Your task to perform on an android device: Show the shopping cart on newegg.com. Search for "macbook pro 15 inch" on newegg.com, select the first entry, and add it to the cart. Image 0: 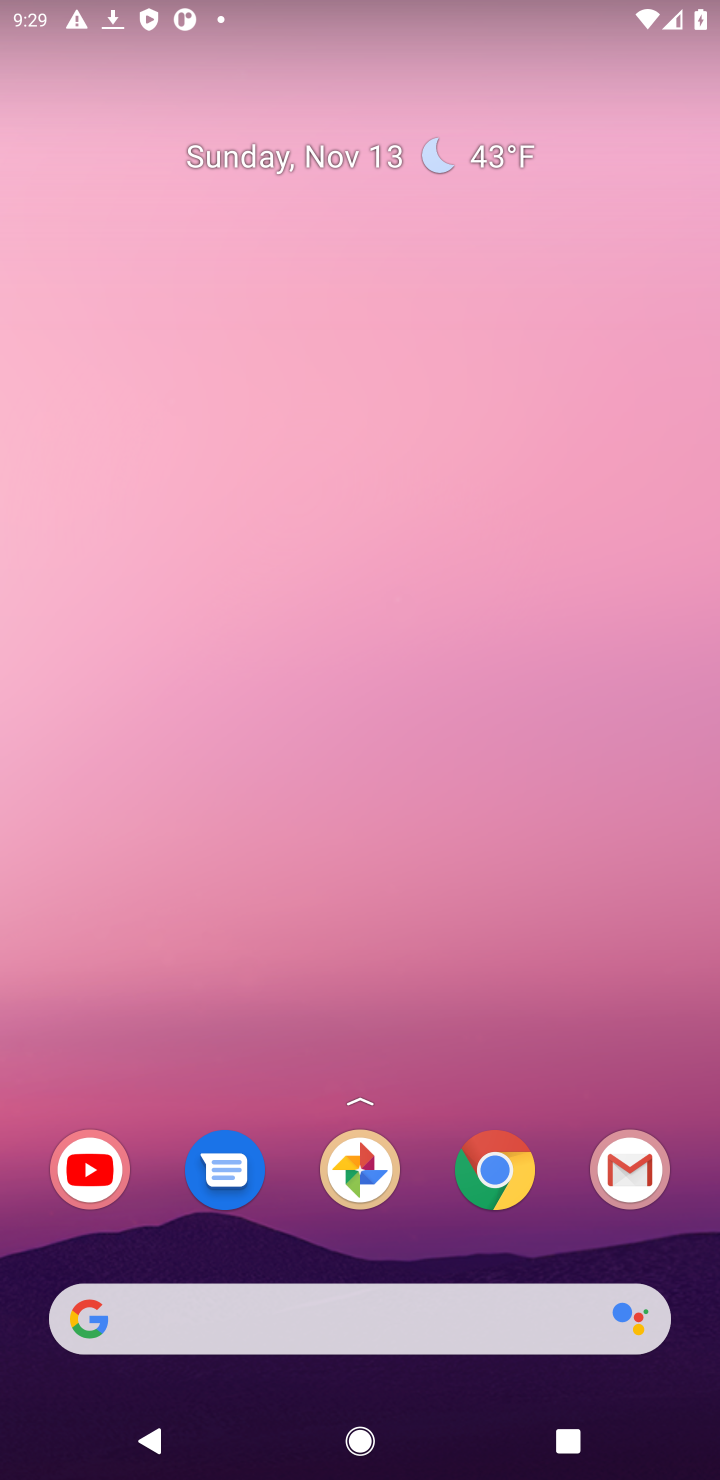
Step 0: drag from (112, 165) to (289, 0)
Your task to perform on an android device: Show the shopping cart on newegg.com. Search for "macbook pro 15 inch" on newegg.com, select the first entry, and add it to the cart. Image 1: 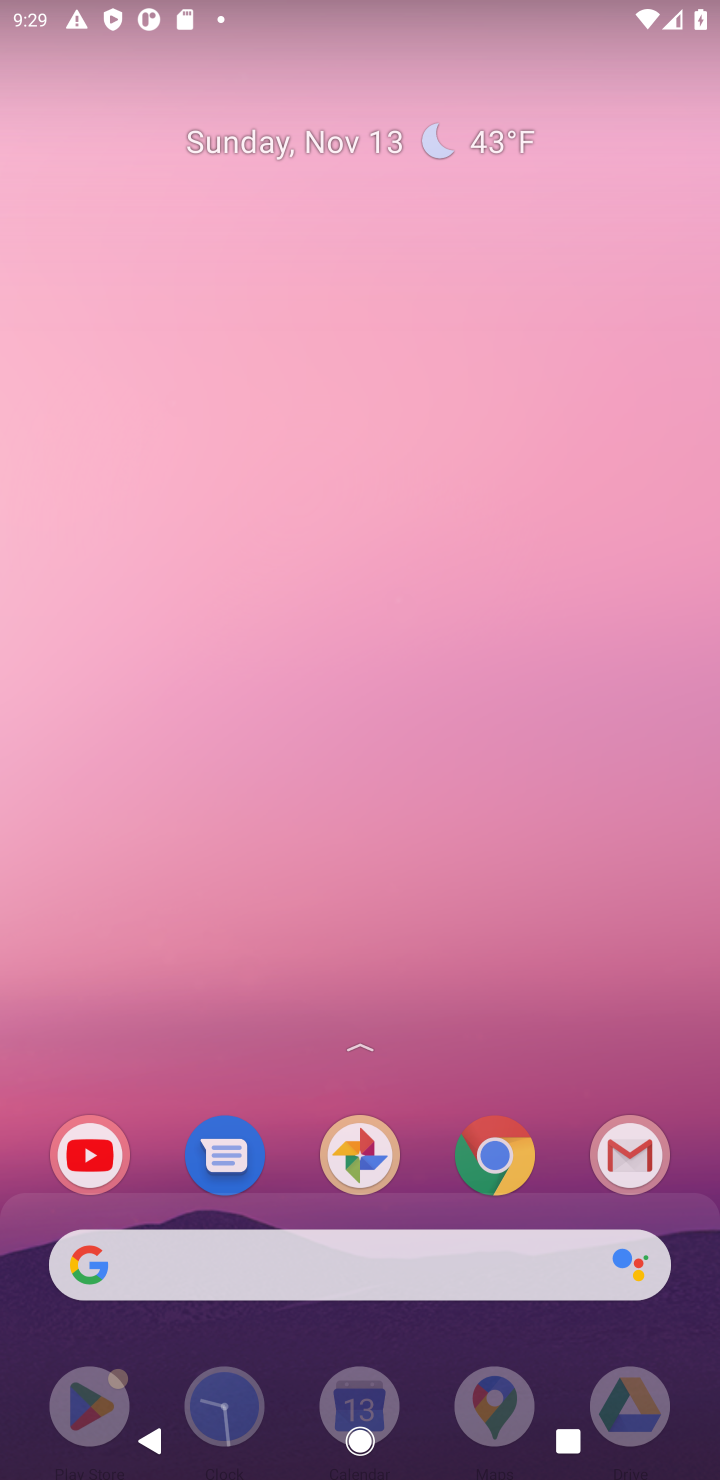
Step 1: drag from (633, 1258) to (514, 146)
Your task to perform on an android device: Show the shopping cart on newegg.com. Search for "macbook pro 15 inch" on newegg.com, select the first entry, and add it to the cart. Image 2: 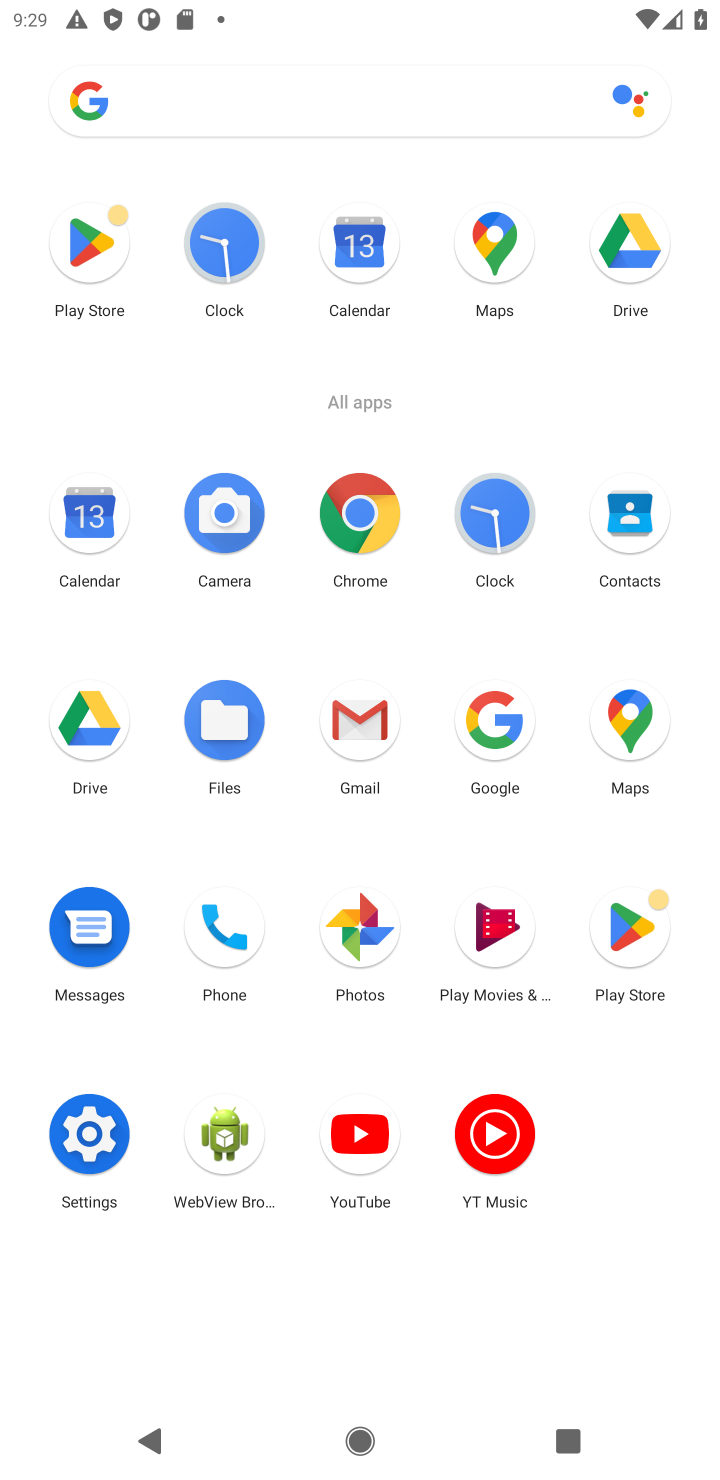
Step 2: click (352, 535)
Your task to perform on an android device: Show the shopping cart on newegg.com. Search for "macbook pro 15 inch" on newegg.com, select the first entry, and add it to the cart. Image 3: 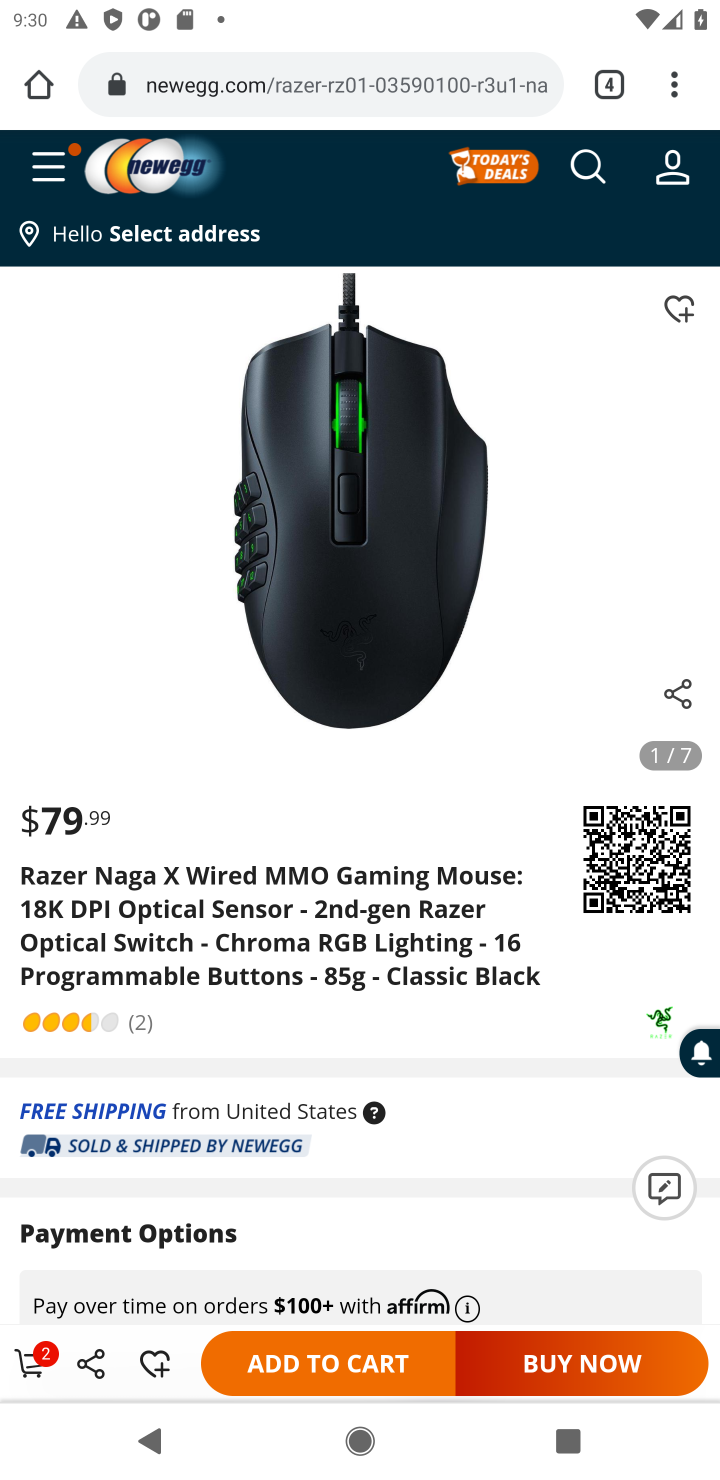
Step 3: click (595, 177)
Your task to perform on an android device: Show the shopping cart on newegg.com. Search for "macbook pro 15 inch" on newegg.com, select the first entry, and add it to the cart. Image 4: 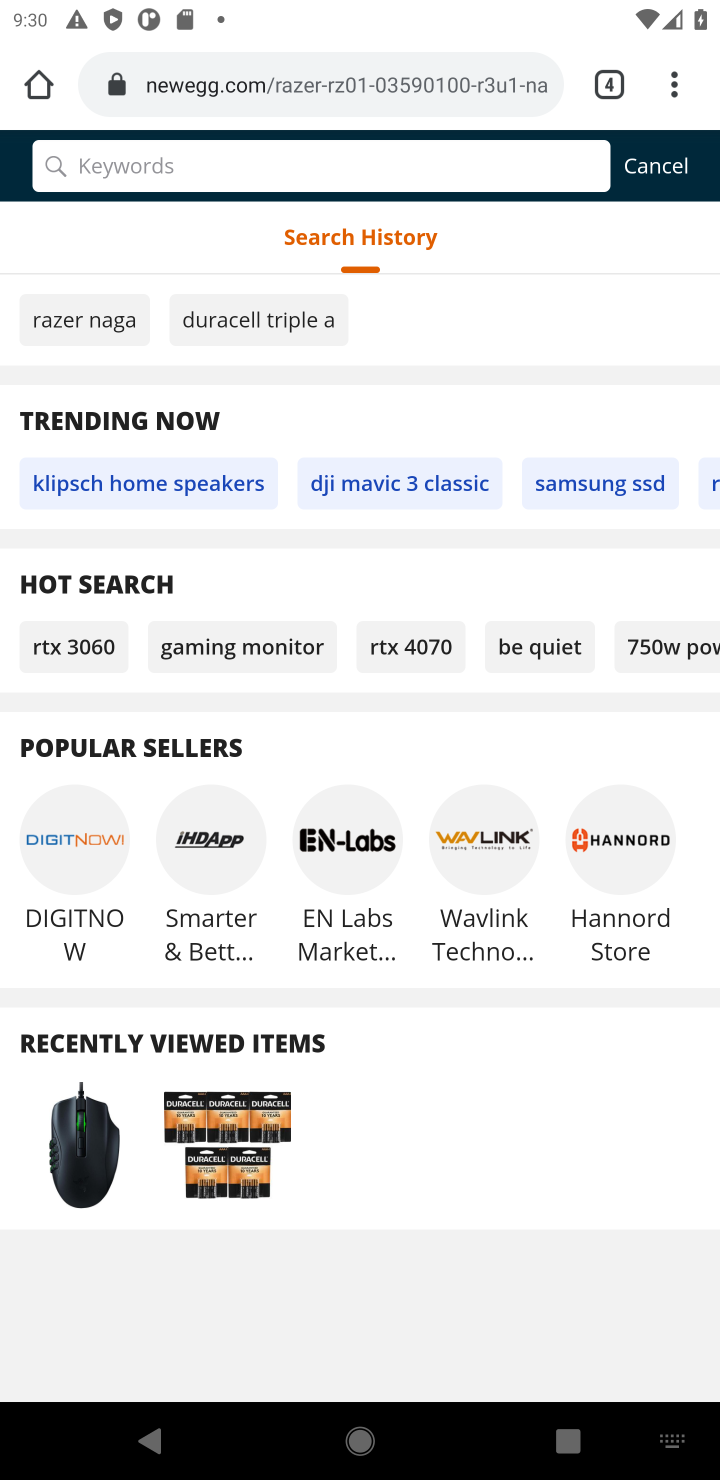
Step 4: type "macbook pro 15 inch"
Your task to perform on an android device: Show the shopping cart on newegg.com. Search for "macbook pro 15 inch" on newegg.com, select the first entry, and add it to the cart. Image 5: 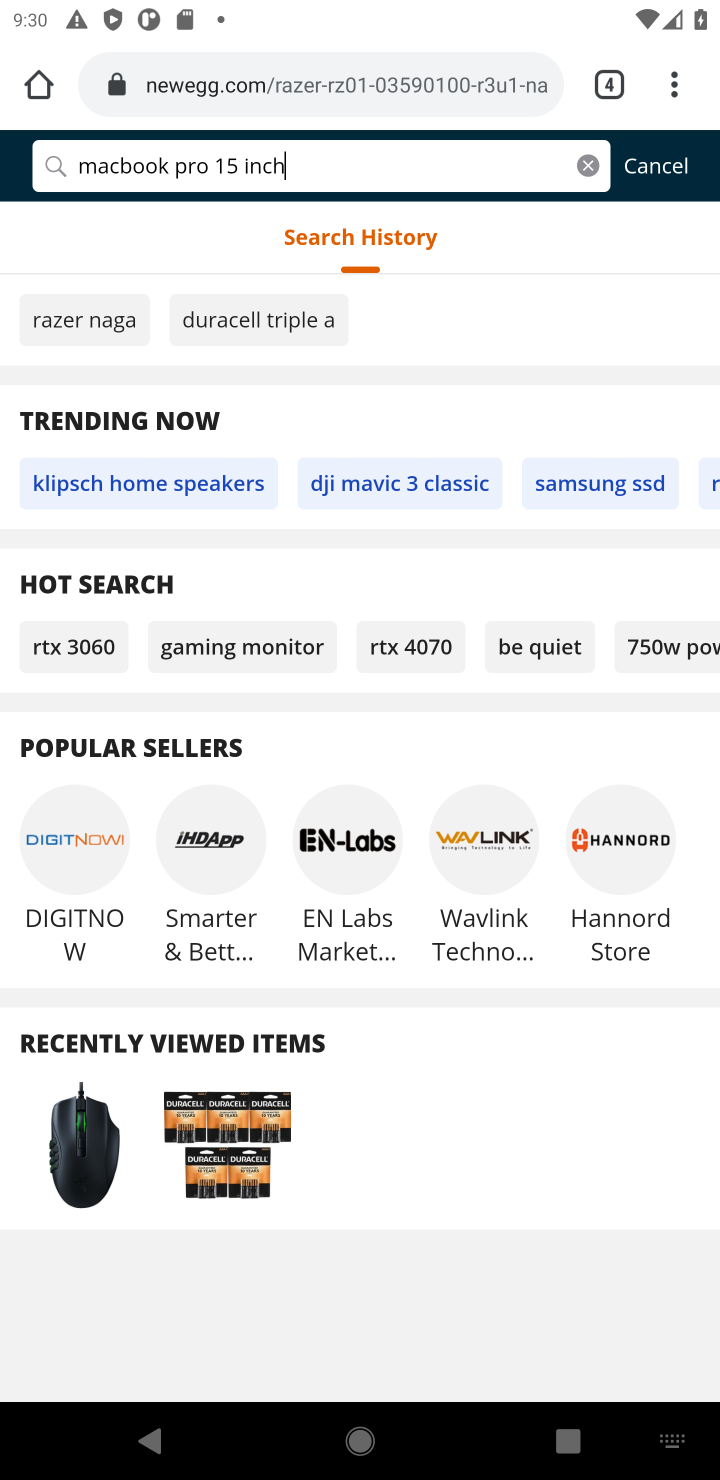
Step 5: press enter
Your task to perform on an android device: Show the shopping cart on newegg.com. Search for "macbook pro 15 inch" on newegg.com, select the first entry, and add it to the cart. Image 6: 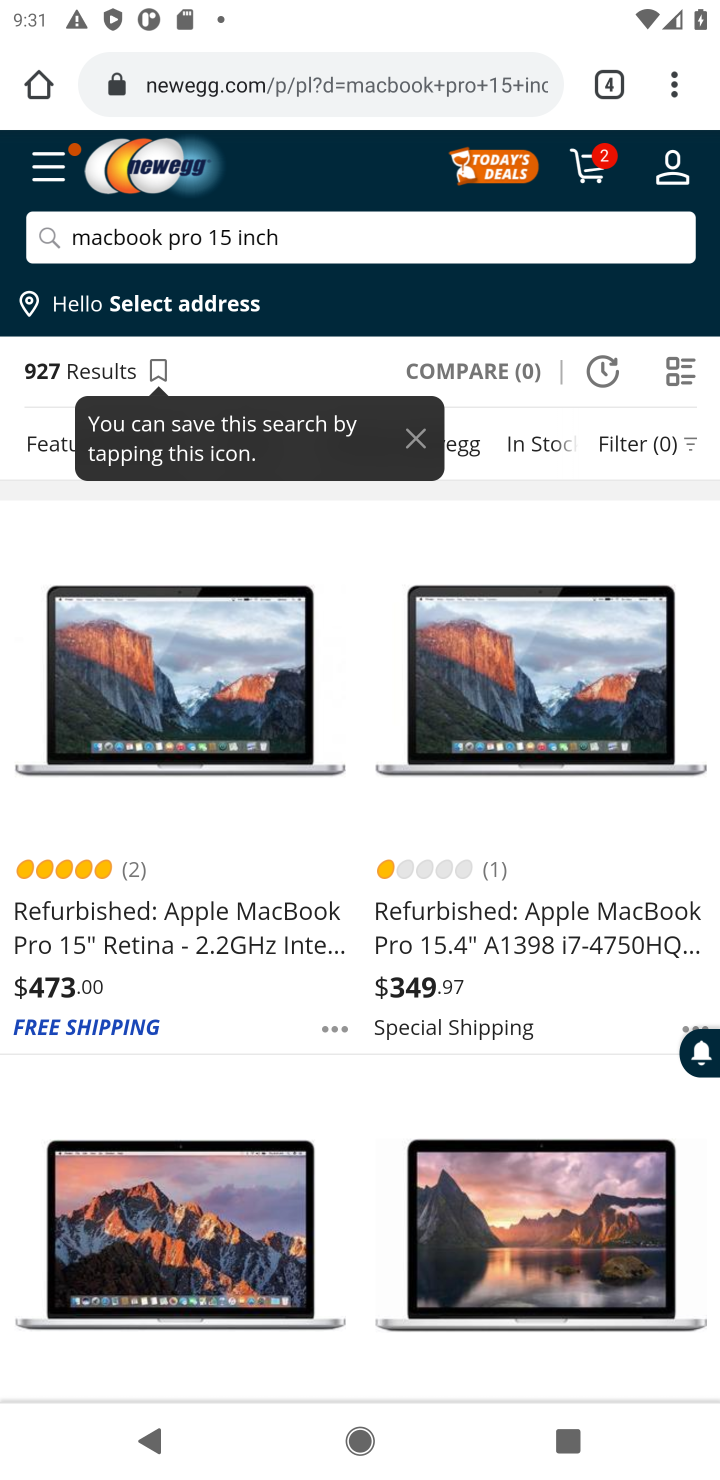
Step 6: click (115, 941)
Your task to perform on an android device: Show the shopping cart on newegg.com. Search for "macbook pro 15 inch" on newegg.com, select the first entry, and add it to the cart. Image 7: 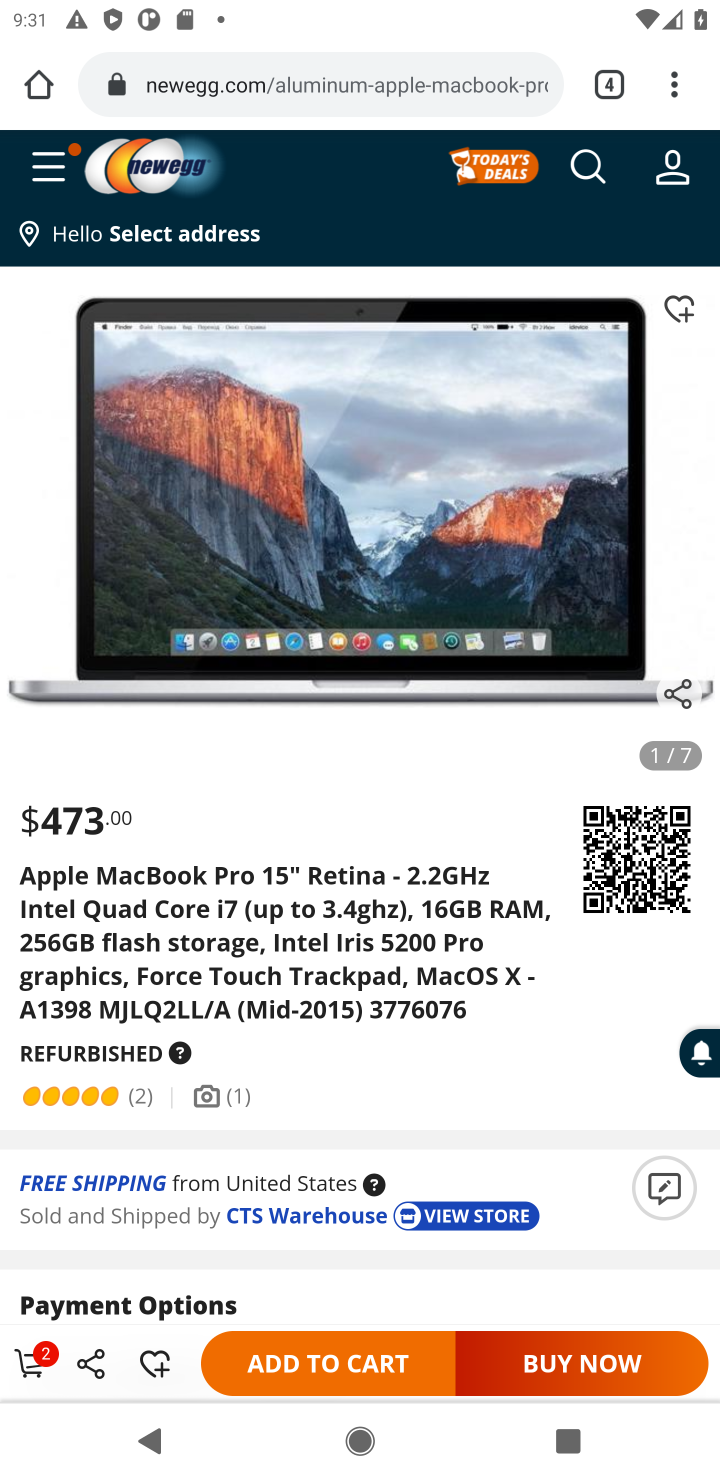
Step 7: click (316, 1345)
Your task to perform on an android device: Show the shopping cart on newegg.com. Search for "macbook pro 15 inch" on newegg.com, select the first entry, and add it to the cart. Image 8: 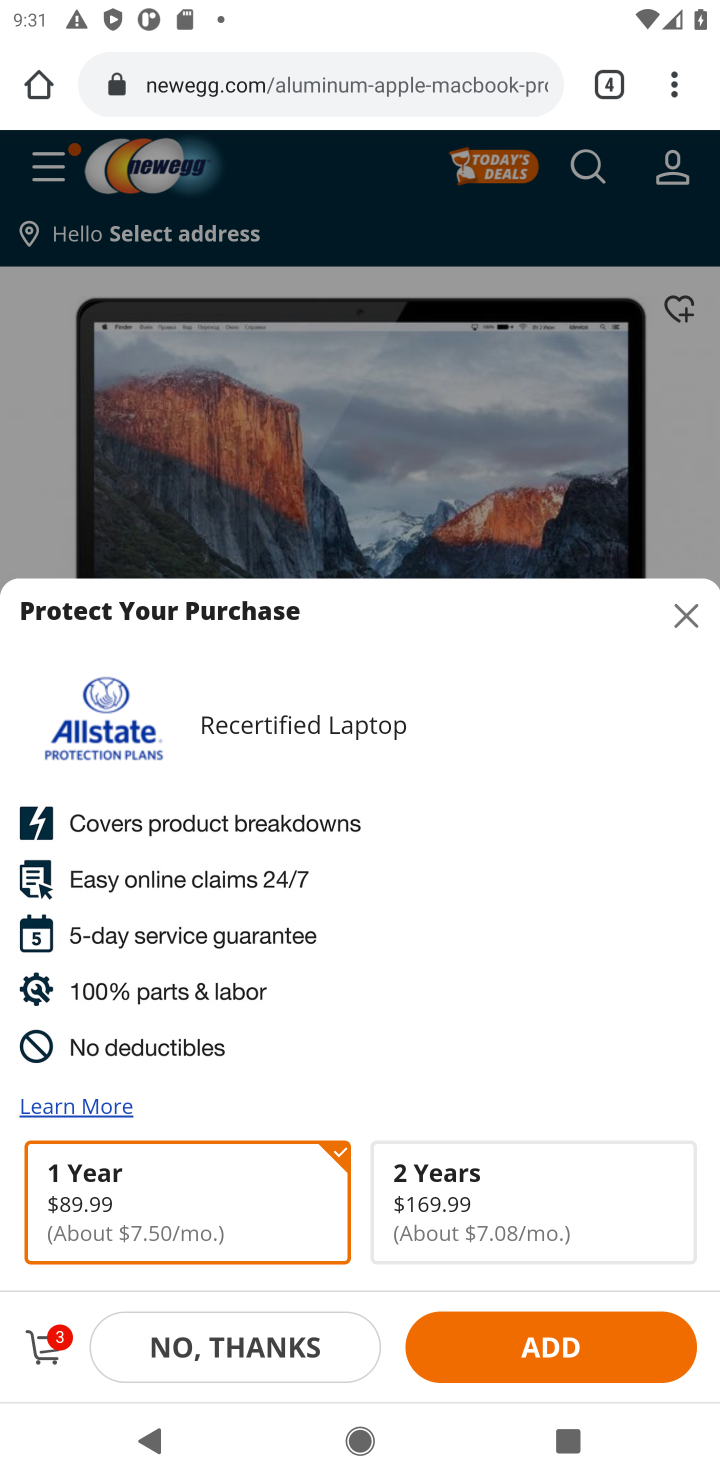
Step 8: click (609, 1338)
Your task to perform on an android device: Show the shopping cart on newegg.com. Search for "macbook pro 15 inch" on newegg.com, select the first entry, and add it to the cart. Image 9: 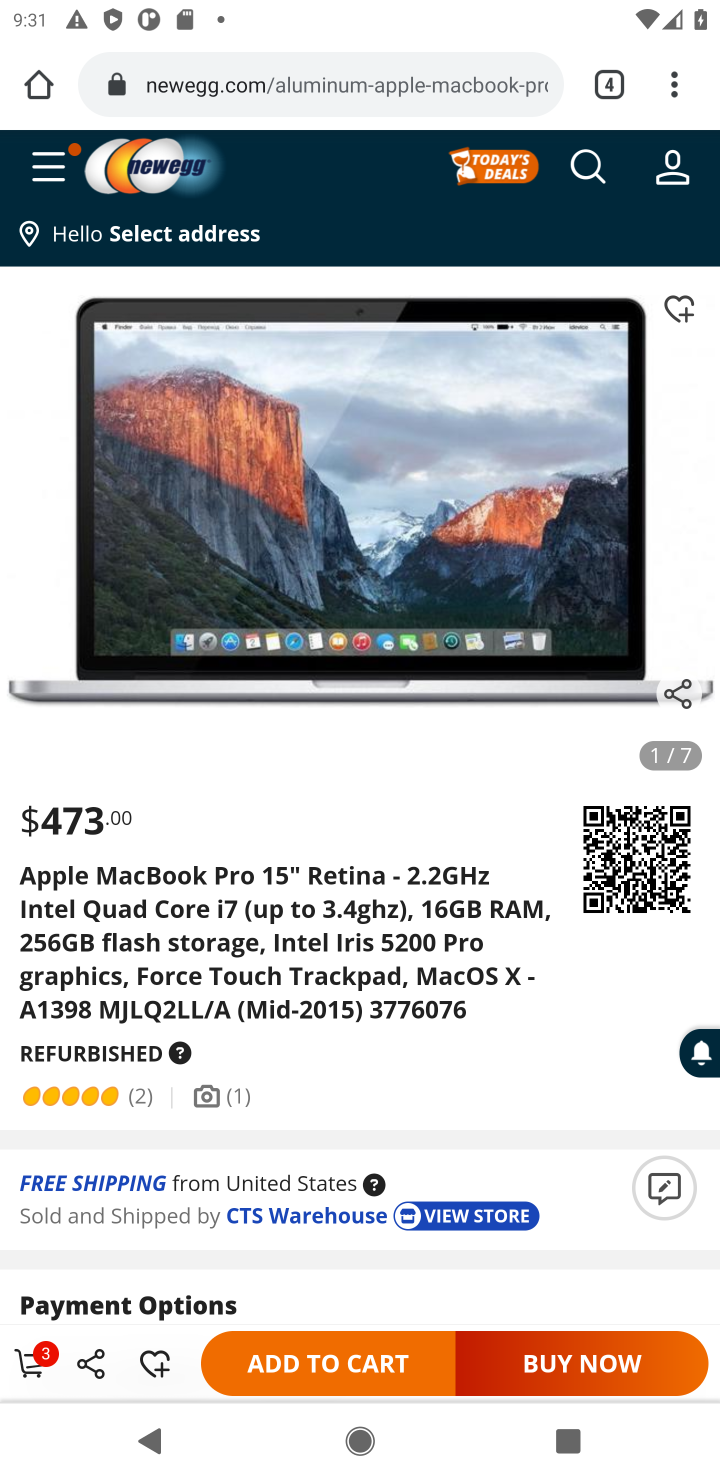
Step 9: task complete